Your task to perform on an android device: What's on my calendar today? Image 0: 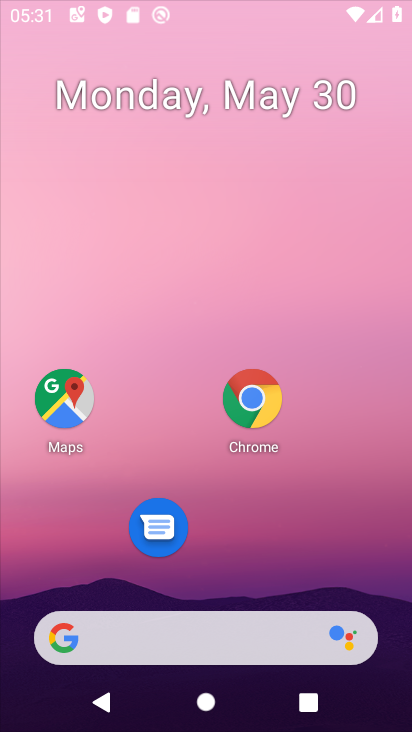
Step 0: drag from (218, 728) to (216, 111)
Your task to perform on an android device: What's on my calendar today? Image 1: 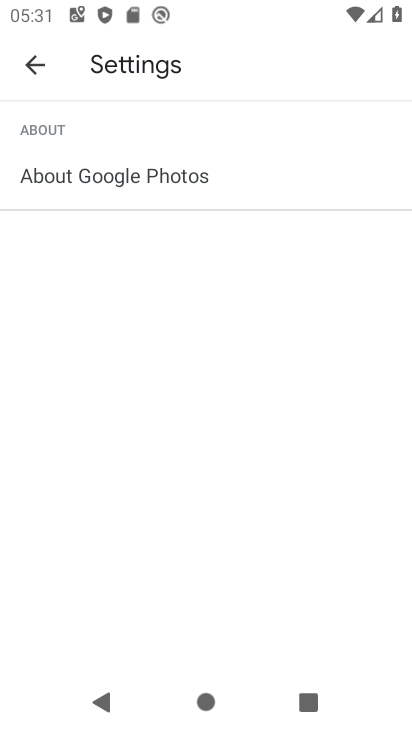
Step 1: press home button
Your task to perform on an android device: What's on my calendar today? Image 2: 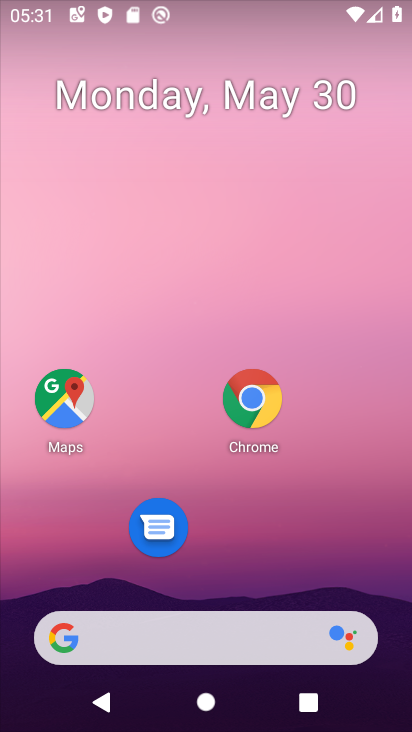
Step 2: drag from (244, 696) to (240, 94)
Your task to perform on an android device: What's on my calendar today? Image 3: 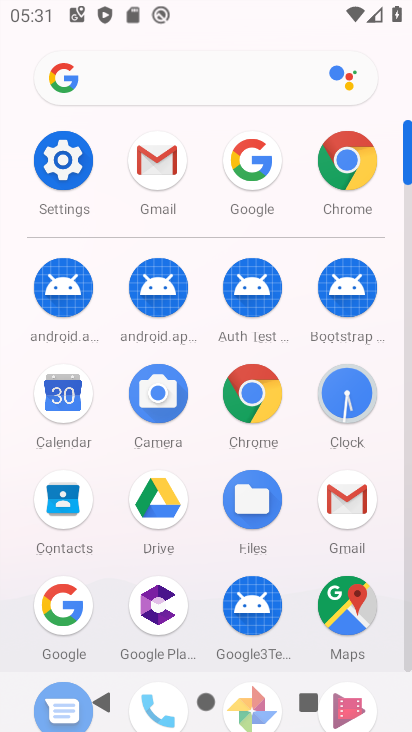
Step 3: click (45, 396)
Your task to perform on an android device: What's on my calendar today? Image 4: 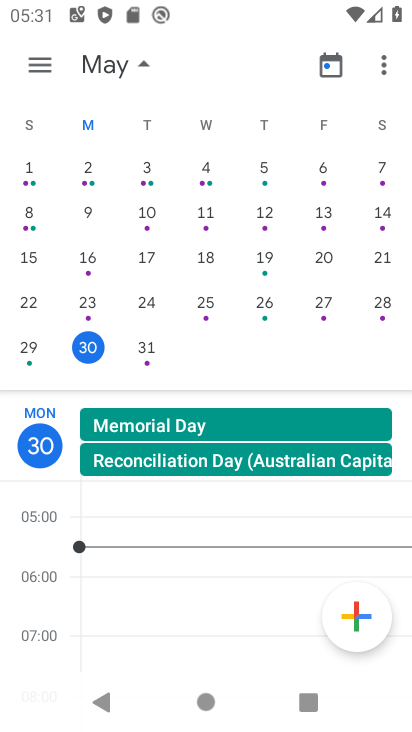
Step 4: click (87, 341)
Your task to perform on an android device: What's on my calendar today? Image 5: 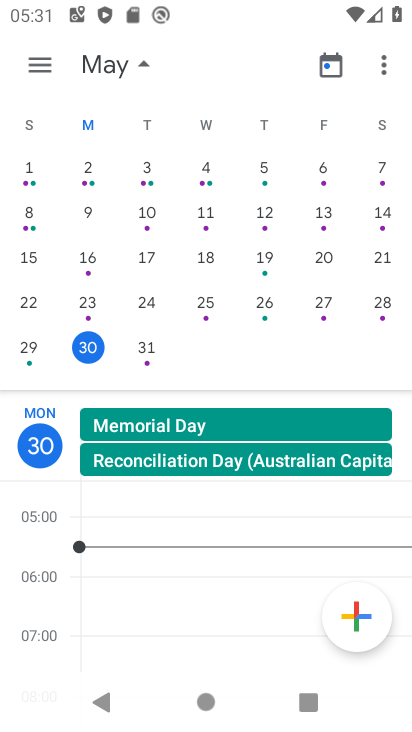
Step 5: click (137, 62)
Your task to perform on an android device: What's on my calendar today? Image 6: 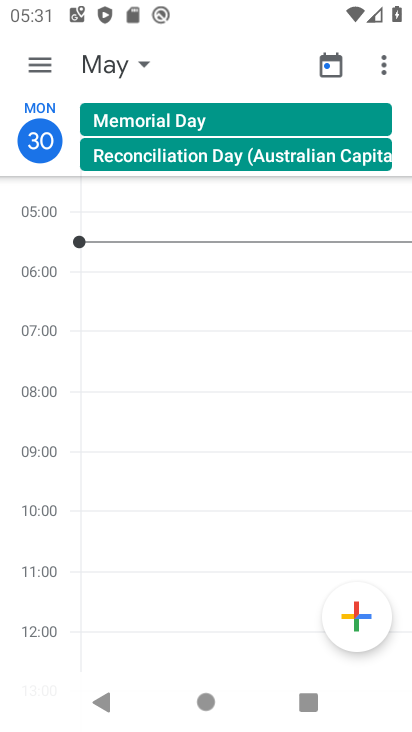
Step 6: task complete